Your task to perform on an android device: add a contact Image 0: 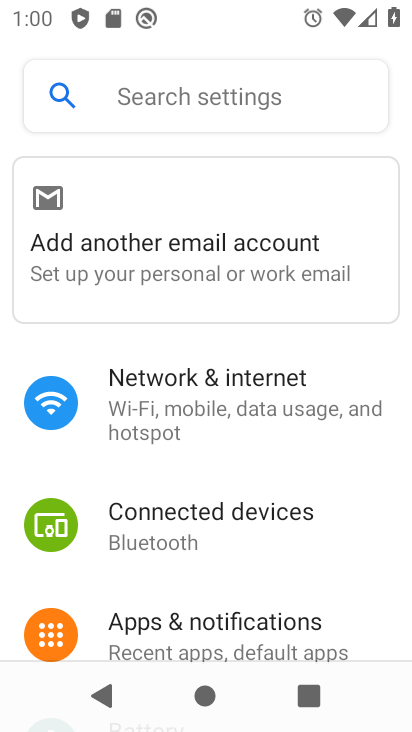
Step 0: press home button
Your task to perform on an android device: add a contact Image 1: 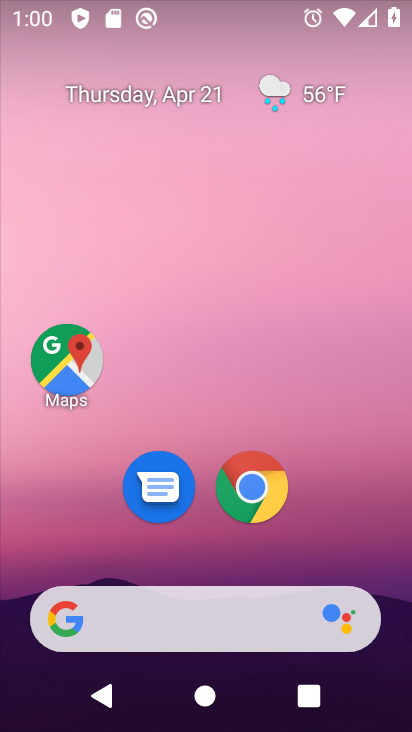
Step 1: drag from (340, 501) to (221, 167)
Your task to perform on an android device: add a contact Image 2: 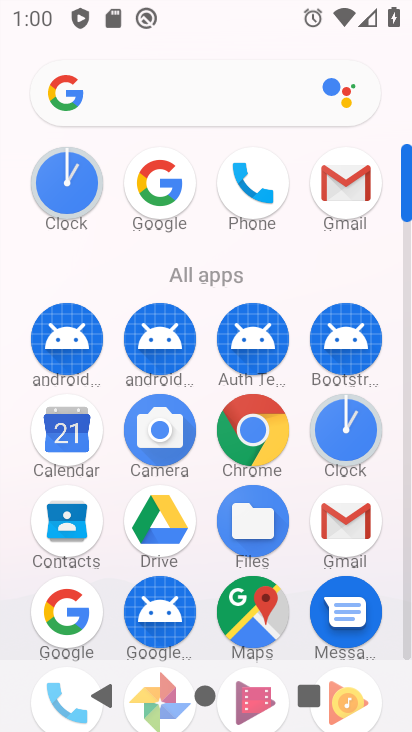
Step 2: click (69, 527)
Your task to perform on an android device: add a contact Image 3: 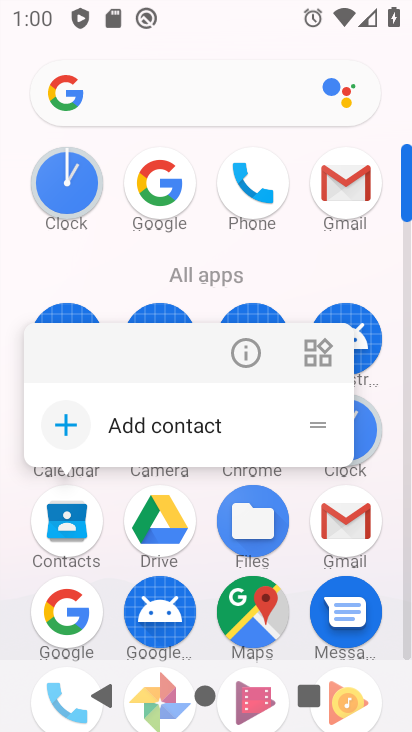
Step 3: click (172, 424)
Your task to perform on an android device: add a contact Image 4: 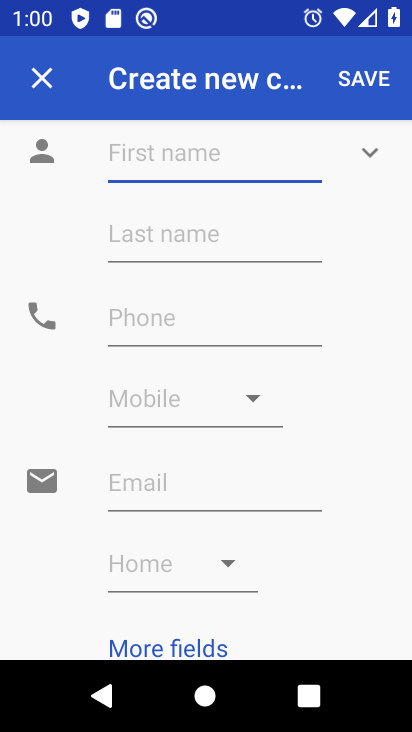
Step 4: click (150, 143)
Your task to perform on an android device: add a contact Image 5: 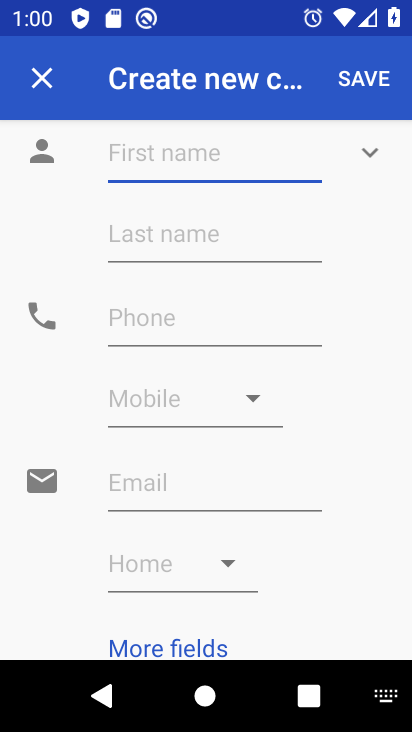
Step 5: type "priyal"
Your task to perform on an android device: add a contact Image 6: 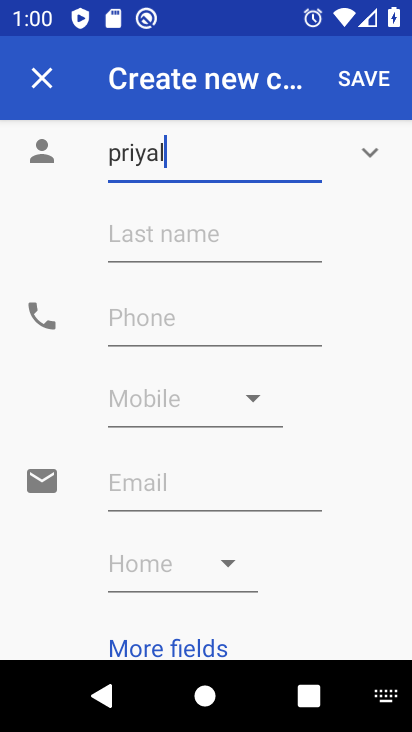
Step 6: click (137, 239)
Your task to perform on an android device: add a contact Image 7: 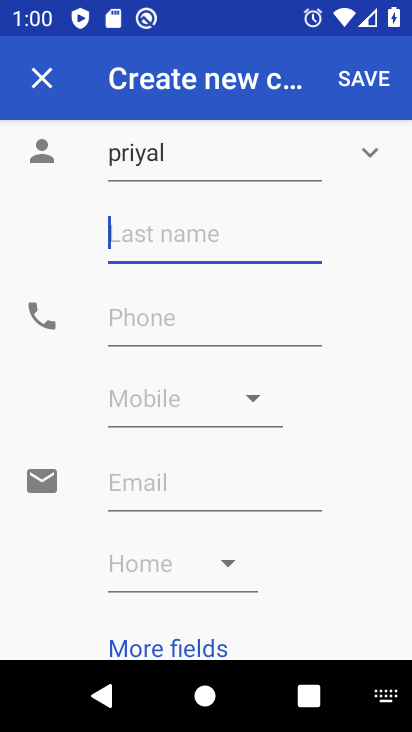
Step 7: type "verma"
Your task to perform on an android device: add a contact Image 8: 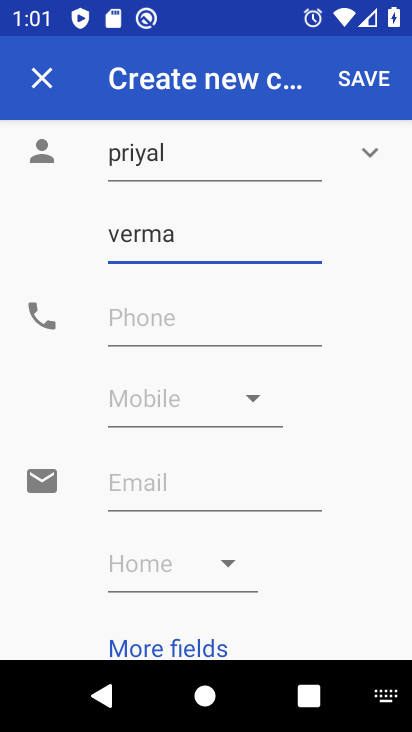
Step 8: click (126, 340)
Your task to perform on an android device: add a contact Image 9: 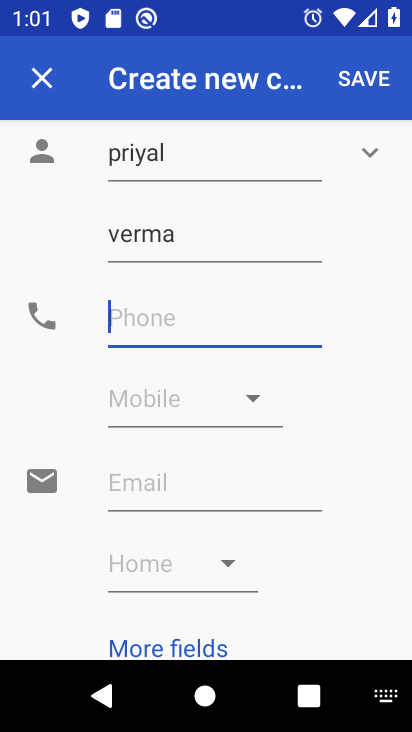
Step 9: type "9987234765"
Your task to perform on an android device: add a contact Image 10: 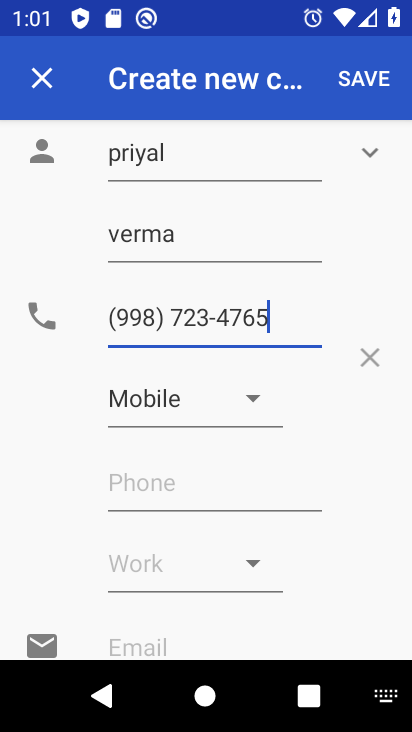
Step 10: click (371, 88)
Your task to perform on an android device: add a contact Image 11: 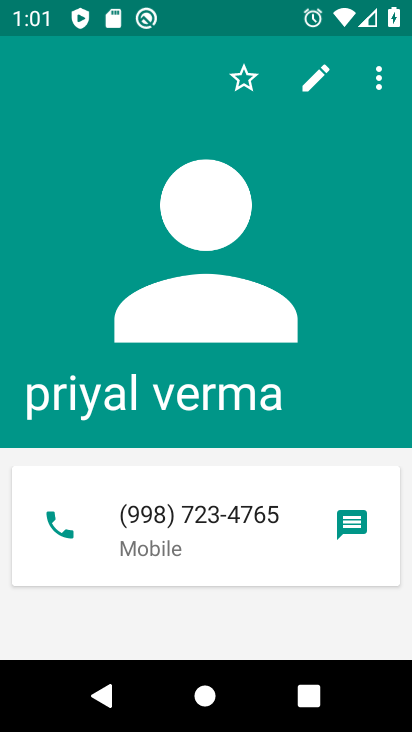
Step 11: task complete